Your task to perform on an android device: change text size in settings app Image 0: 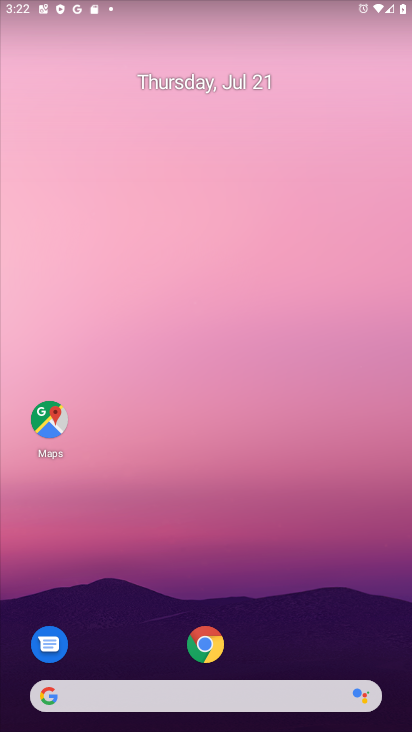
Step 0: press home button
Your task to perform on an android device: change text size in settings app Image 1: 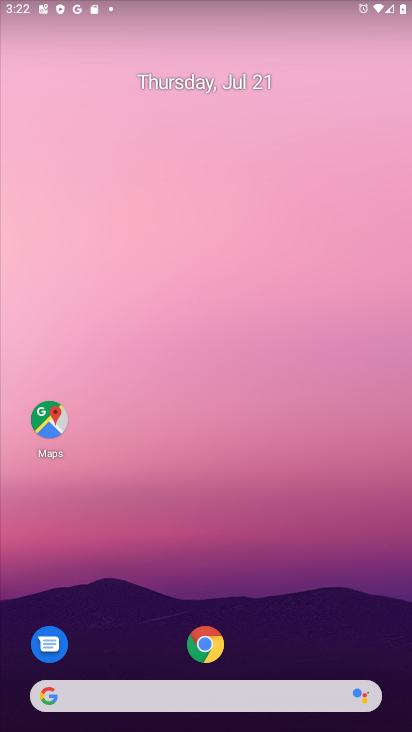
Step 1: drag from (361, 632) to (384, 69)
Your task to perform on an android device: change text size in settings app Image 2: 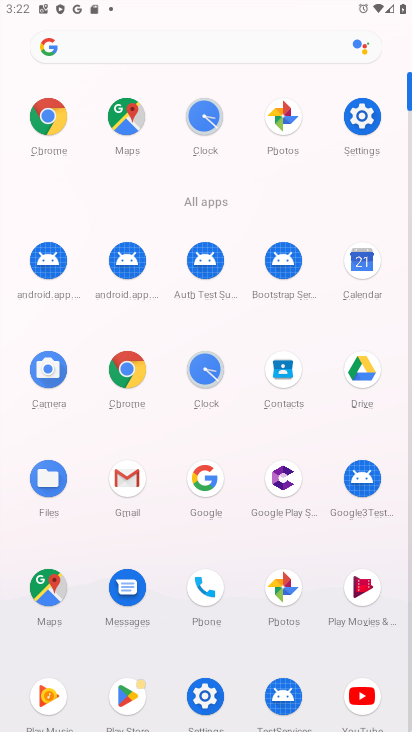
Step 2: click (360, 111)
Your task to perform on an android device: change text size in settings app Image 3: 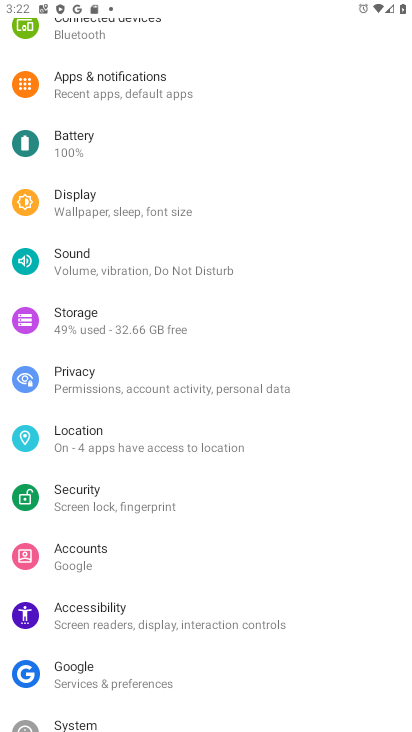
Step 3: click (103, 197)
Your task to perform on an android device: change text size in settings app Image 4: 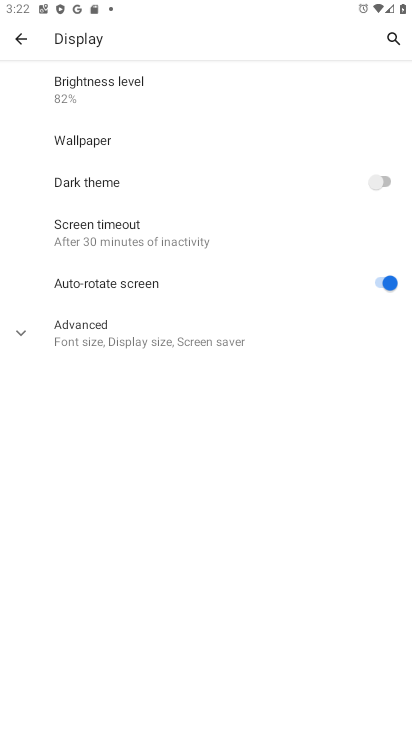
Step 4: click (18, 327)
Your task to perform on an android device: change text size in settings app Image 5: 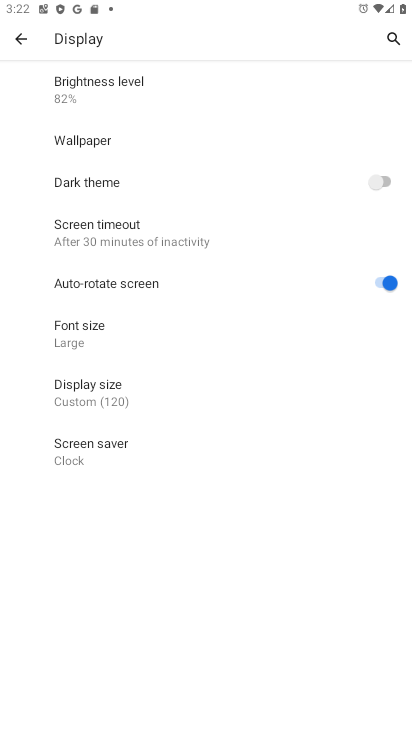
Step 5: click (77, 339)
Your task to perform on an android device: change text size in settings app Image 6: 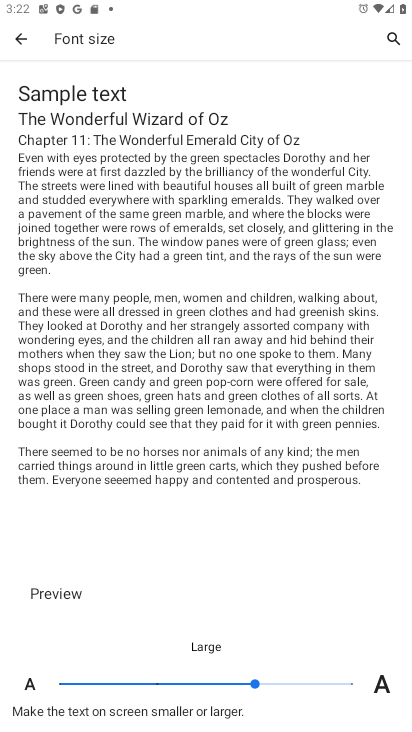
Step 6: click (352, 683)
Your task to perform on an android device: change text size in settings app Image 7: 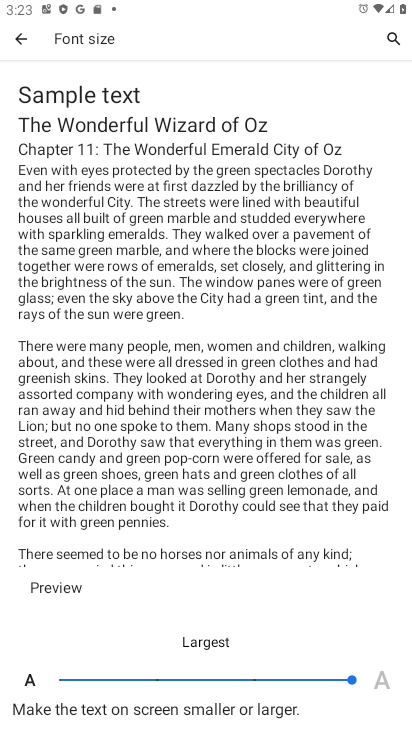
Step 7: task complete